Your task to perform on an android device: turn off data saver in the chrome app Image 0: 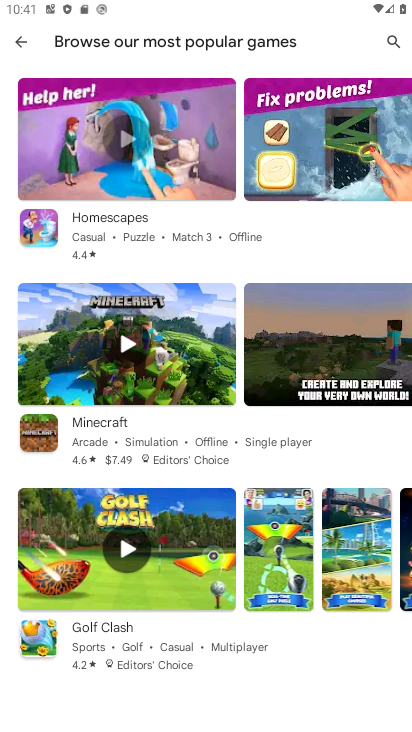
Step 0: press home button
Your task to perform on an android device: turn off data saver in the chrome app Image 1: 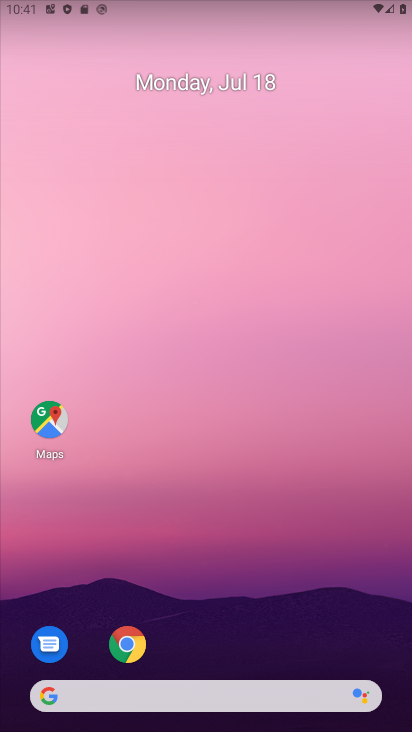
Step 1: click (129, 644)
Your task to perform on an android device: turn off data saver in the chrome app Image 2: 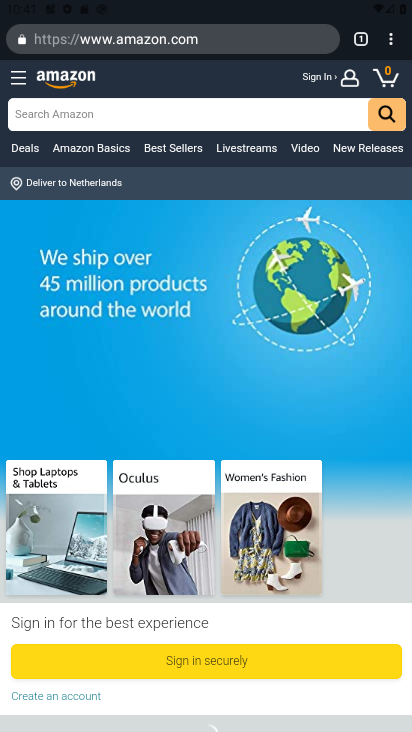
Step 2: click (390, 43)
Your task to perform on an android device: turn off data saver in the chrome app Image 3: 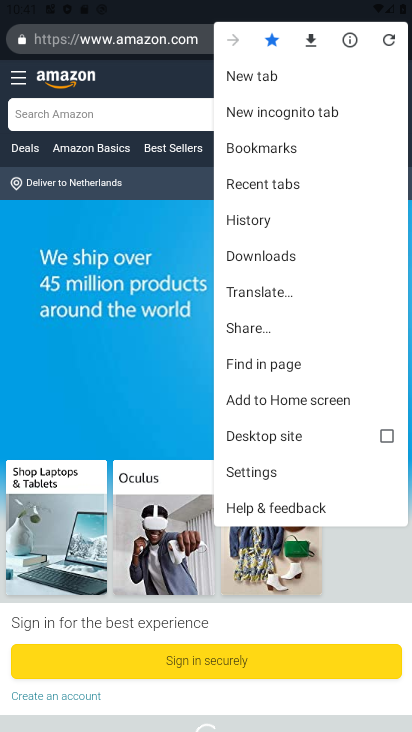
Step 3: click (252, 479)
Your task to perform on an android device: turn off data saver in the chrome app Image 4: 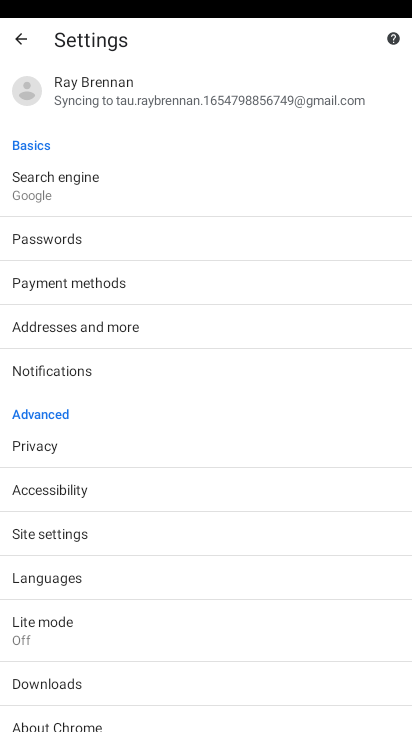
Step 4: click (71, 634)
Your task to perform on an android device: turn off data saver in the chrome app Image 5: 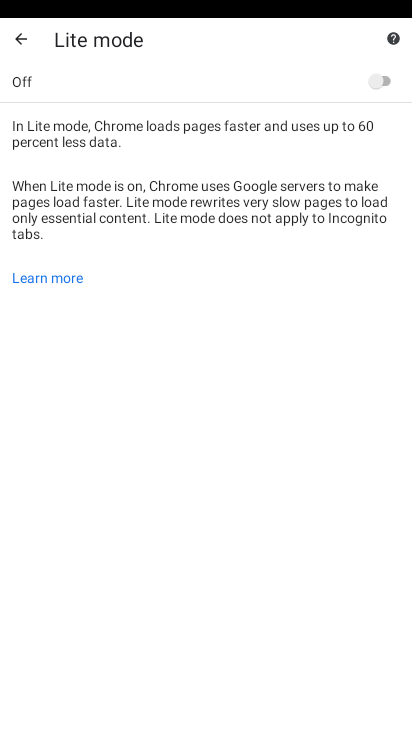
Step 5: task complete